Your task to perform on an android device: Clear the cart on ebay. Add "macbook air" to the cart on ebay, then select checkout. Image 0: 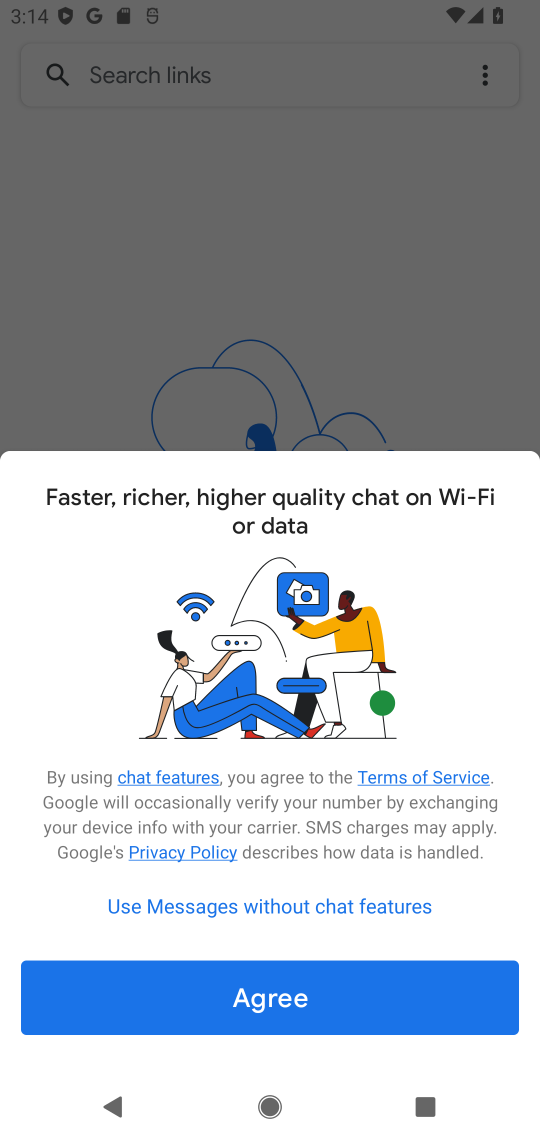
Step 0: press home button
Your task to perform on an android device: Clear the cart on ebay. Add "macbook air" to the cart on ebay, then select checkout. Image 1: 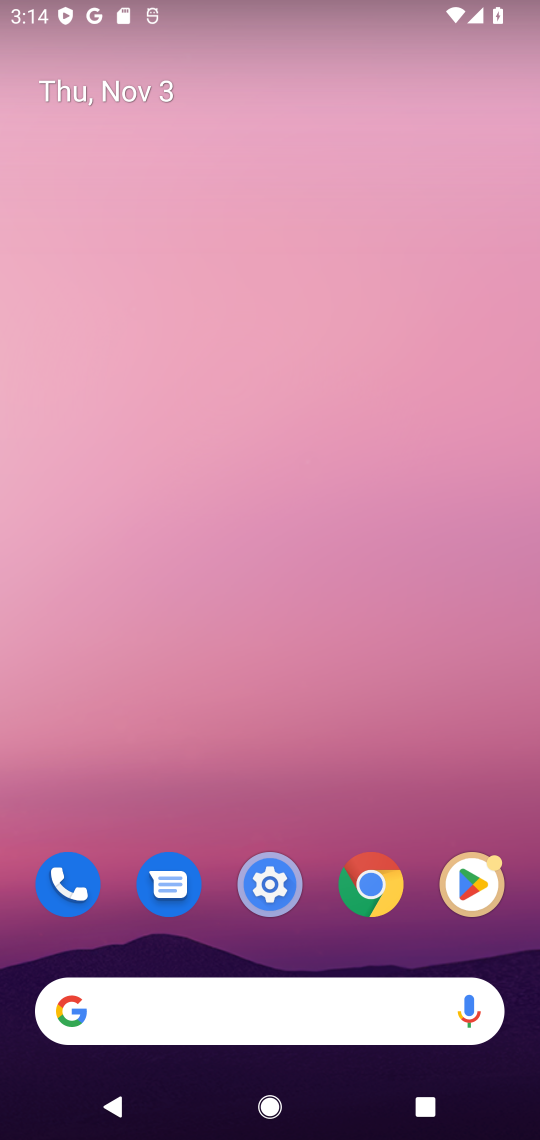
Step 1: click (106, 1003)
Your task to perform on an android device: Clear the cart on ebay. Add "macbook air" to the cart on ebay, then select checkout. Image 2: 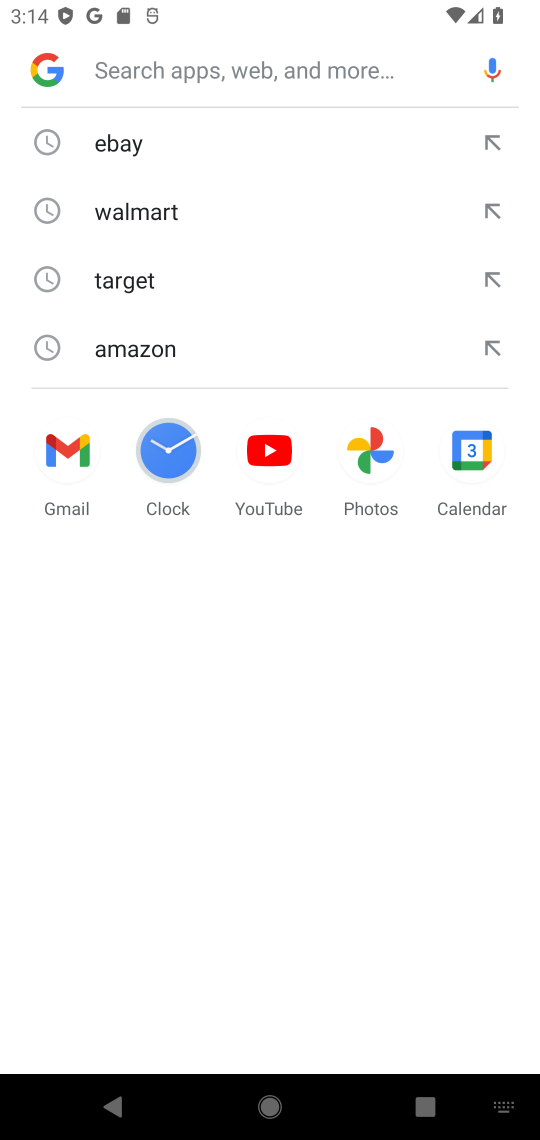
Step 2: type "ebay"
Your task to perform on an android device: Clear the cart on ebay. Add "macbook air" to the cart on ebay, then select checkout. Image 3: 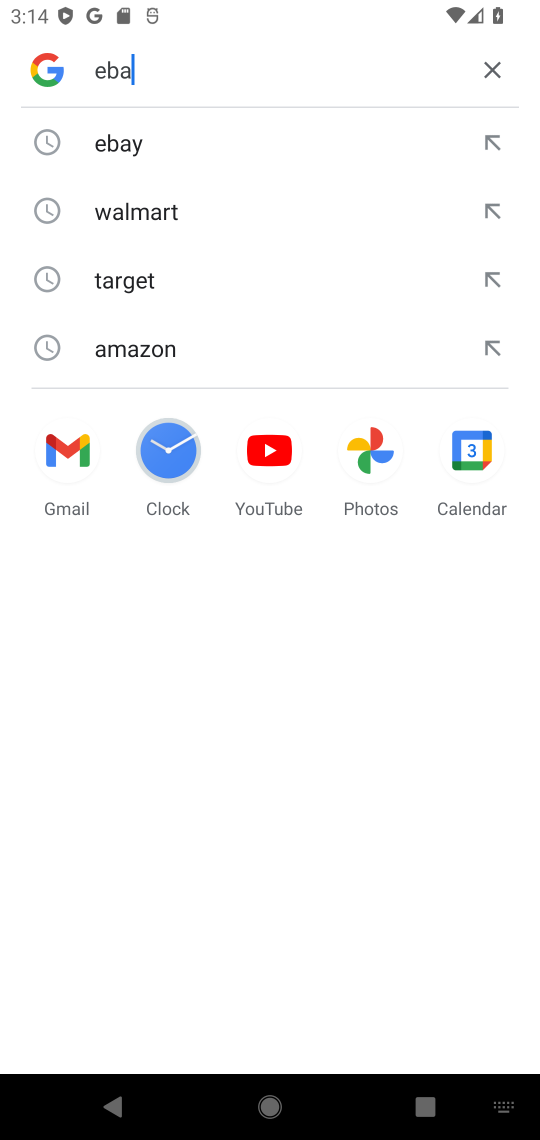
Step 3: press enter
Your task to perform on an android device: Clear the cart on ebay. Add "macbook air" to the cart on ebay, then select checkout. Image 4: 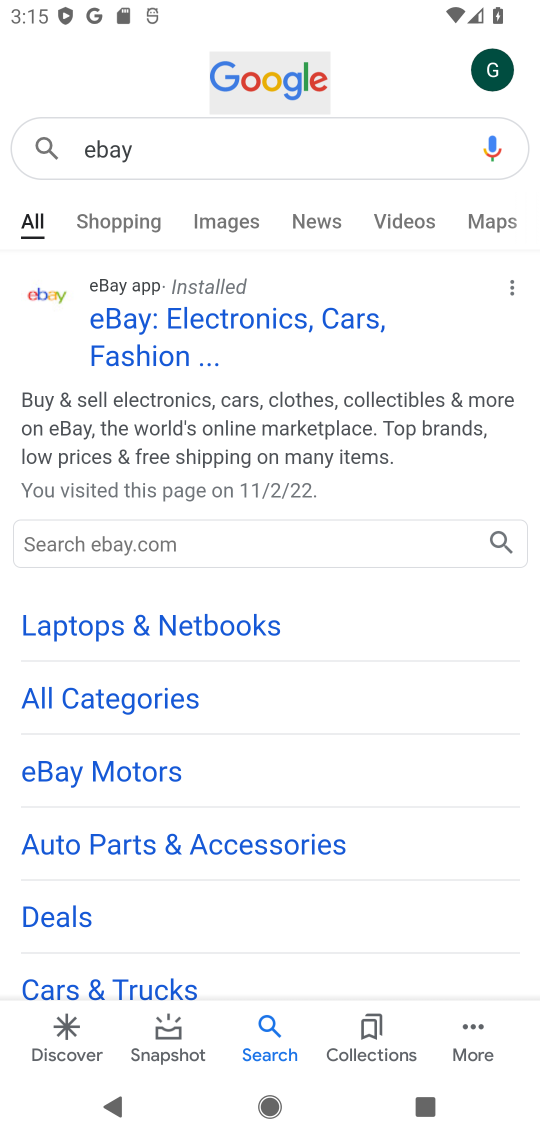
Step 4: click (182, 328)
Your task to perform on an android device: Clear the cart on ebay. Add "macbook air" to the cart on ebay, then select checkout. Image 5: 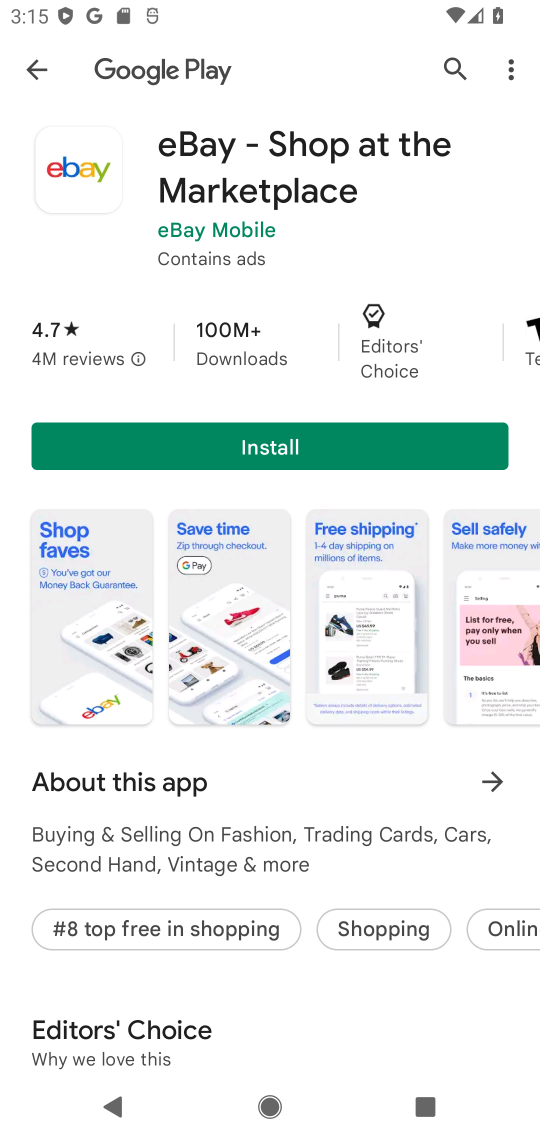
Step 5: press back button
Your task to perform on an android device: Clear the cart on ebay. Add "macbook air" to the cart on ebay, then select checkout. Image 6: 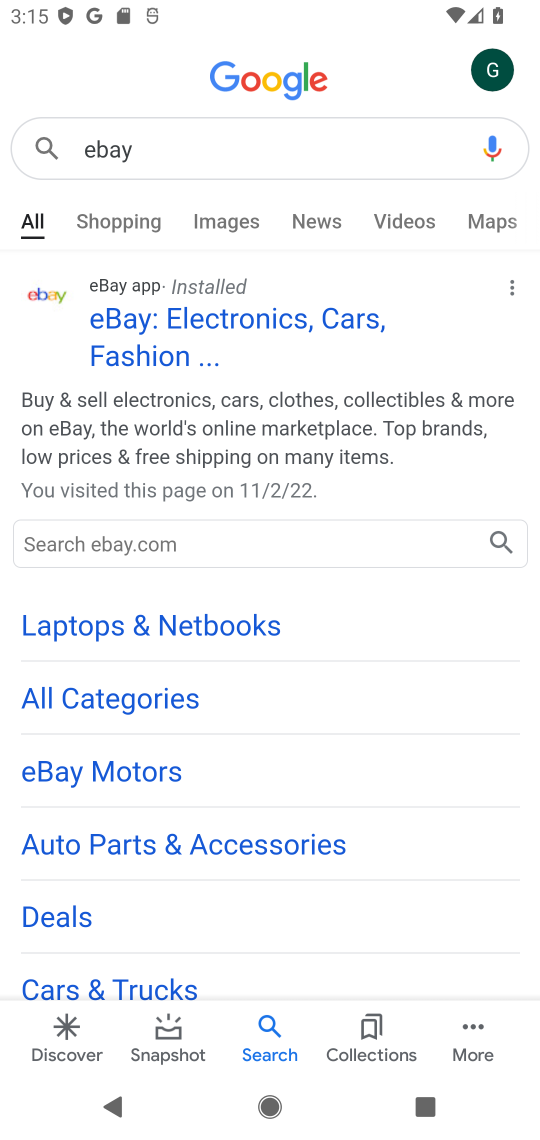
Step 6: click (157, 686)
Your task to perform on an android device: Clear the cart on ebay. Add "macbook air" to the cart on ebay, then select checkout. Image 7: 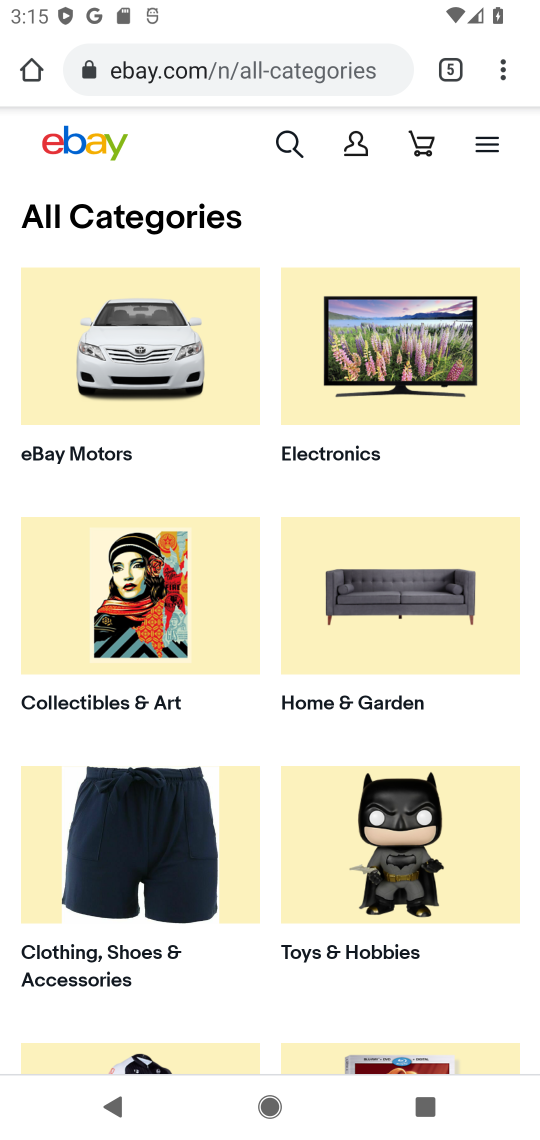
Step 7: click (422, 149)
Your task to perform on an android device: Clear the cart on ebay. Add "macbook air" to the cart on ebay, then select checkout. Image 8: 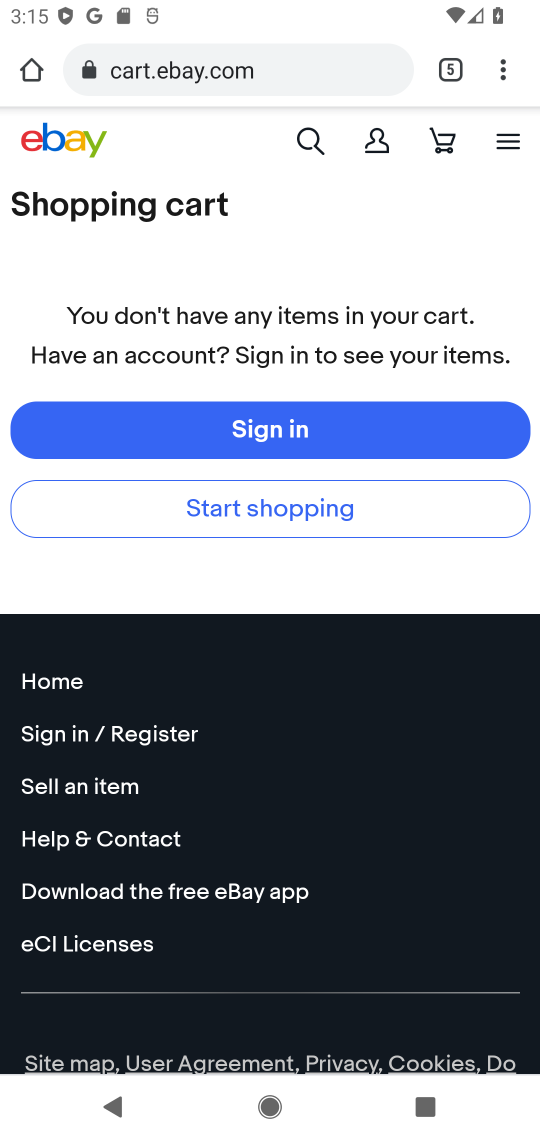
Step 8: click (301, 130)
Your task to perform on an android device: Clear the cart on ebay. Add "macbook air" to the cart on ebay, then select checkout. Image 9: 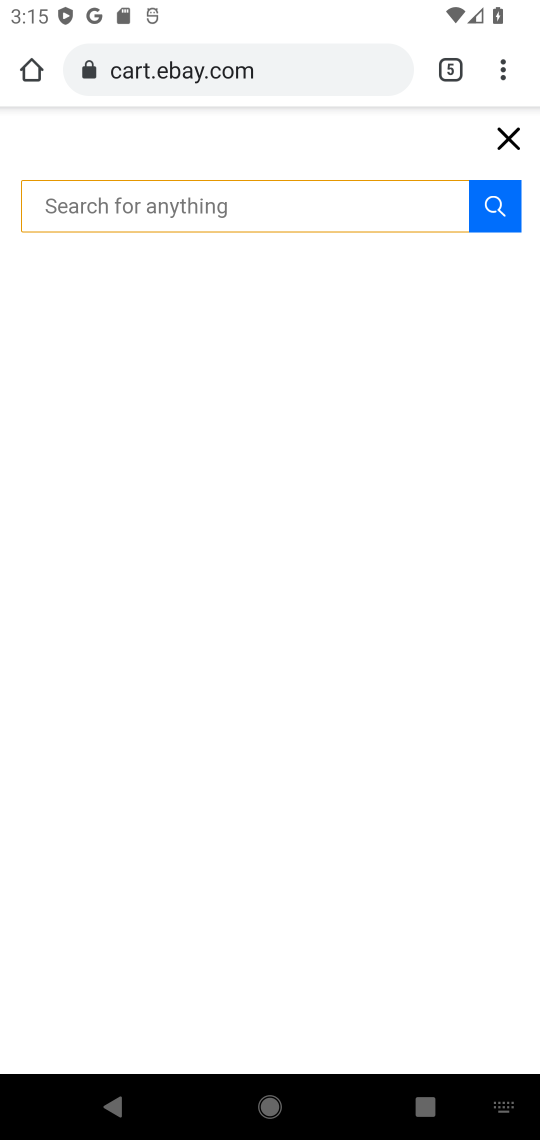
Step 9: type "macbook air"
Your task to perform on an android device: Clear the cart on ebay. Add "macbook air" to the cart on ebay, then select checkout. Image 10: 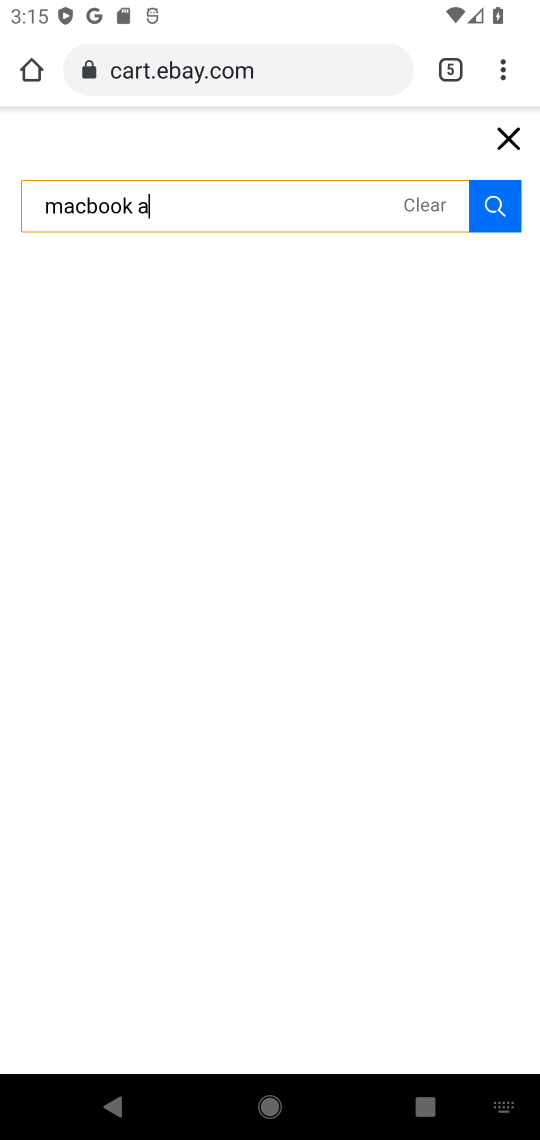
Step 10: press enter
Your task to perform on an android device: Clear the cart on ebay. Add "macbook air" to the cart on ebay, then select checkout. Image 11: 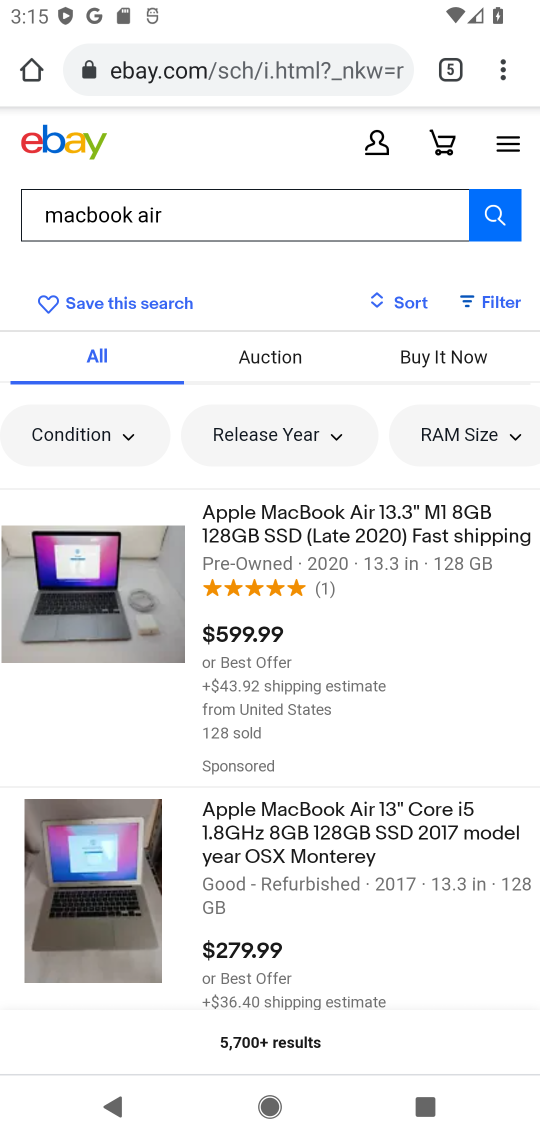
Step 11: click (274, 528)
Your task to perform on an android device: Clear the cart on ebay. Add "macbook air" to the cart on ebay, then select checkout. Image 12: 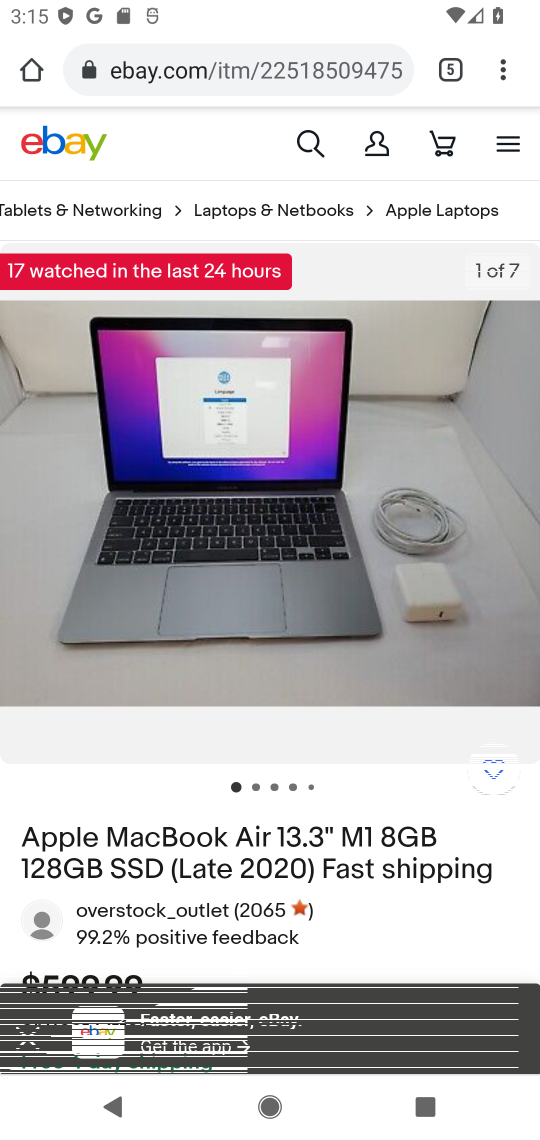
Step 12: drag from (341, 852) to (338, 417)
Your task to perform on an android device: Clear the cart on ebay. Add "macbook air" to the cart on ebay, then select checkout. Image 13: 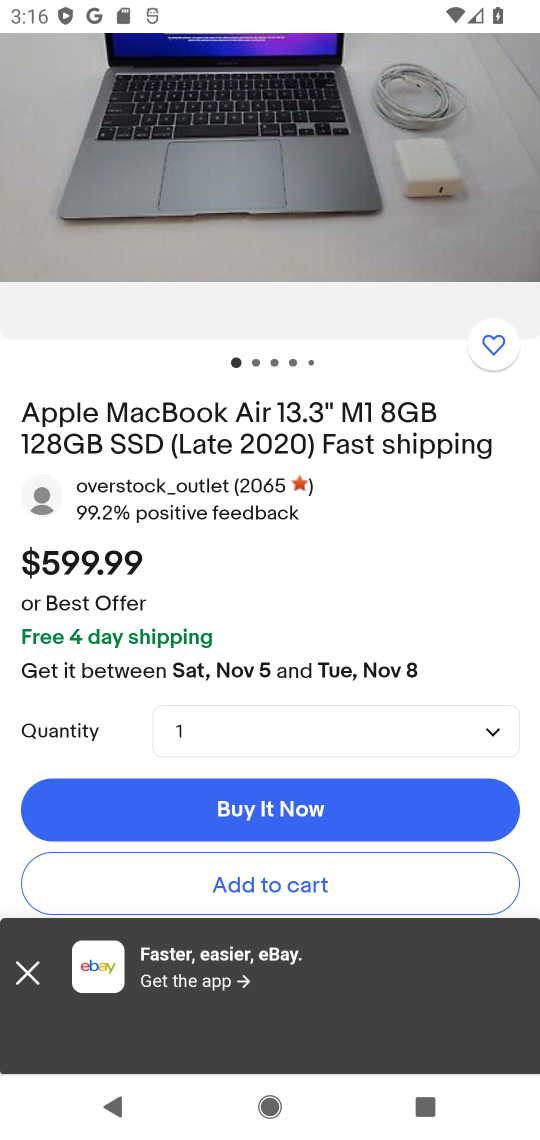
Step 13: drag from (328, 851) to (392, 353)
Your task to perform on an android device: Clear the cart on ebay. Add "macbook air" to the cart on ebay, then select checkout. Image 14: 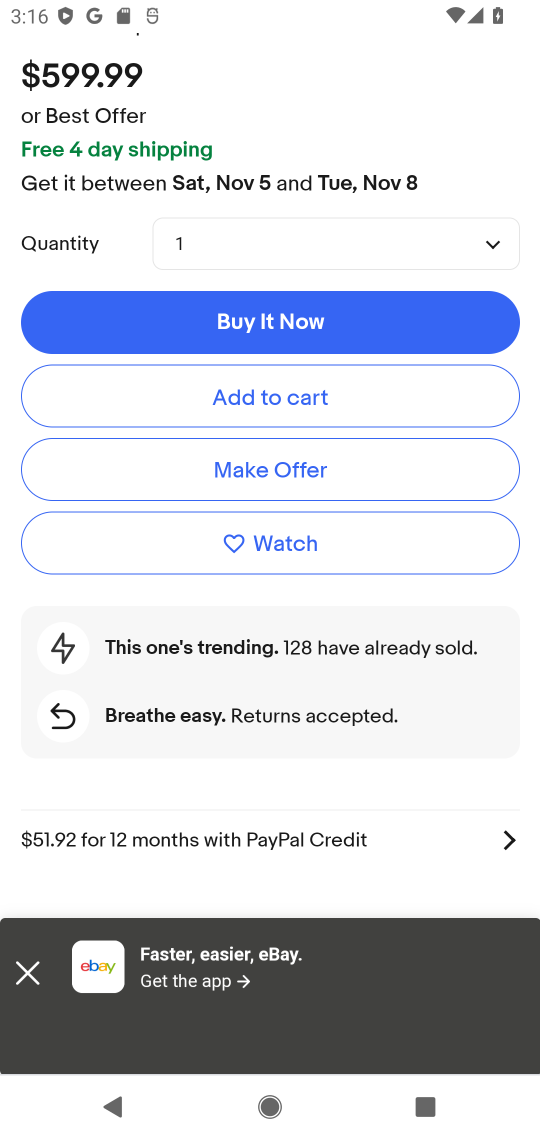
Step 14: click (246, 397)
Your task to perform on an android device: Clear the cart on ebay. Add "macbook air" to the cart on ebay, then select checkout. Image 15: 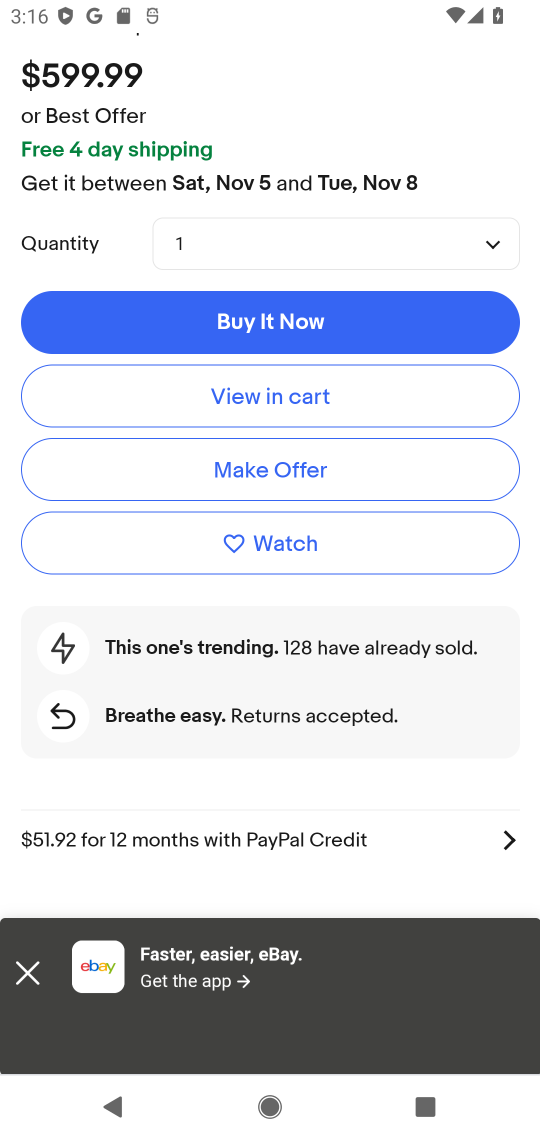
Step 15: click (242, 398)
Your task to perform on an android device: Clear the cart on ebay. Add "macbook air" to the cart on ebay, then select checkout. Image 16: 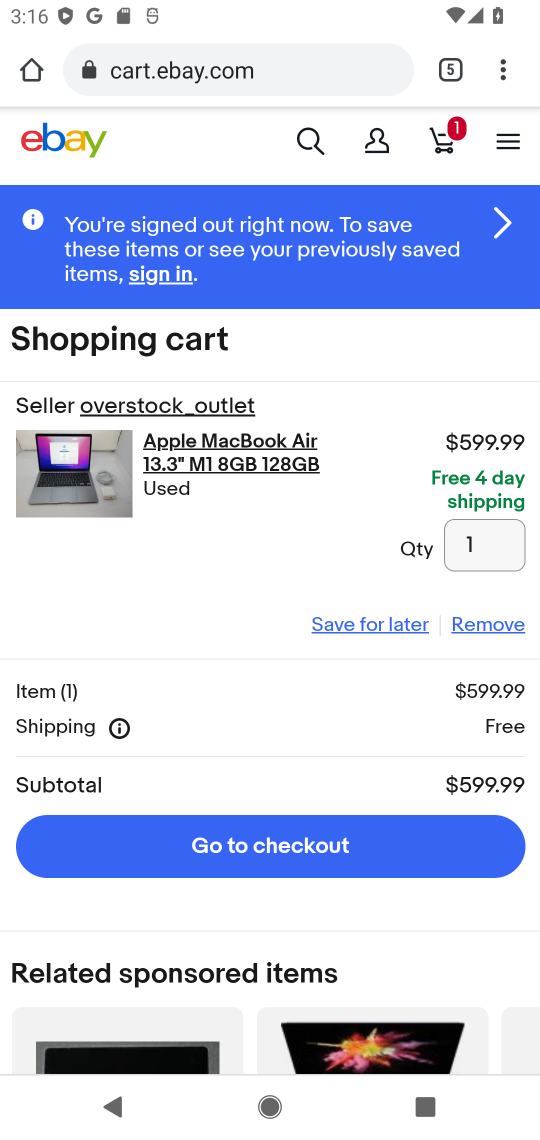
Step 16: click (251, 842)
Your task to perform on an android device: Clear the cart on ebay. Add "macbook air" to the cart on ebay, then select checkout. Image 17: 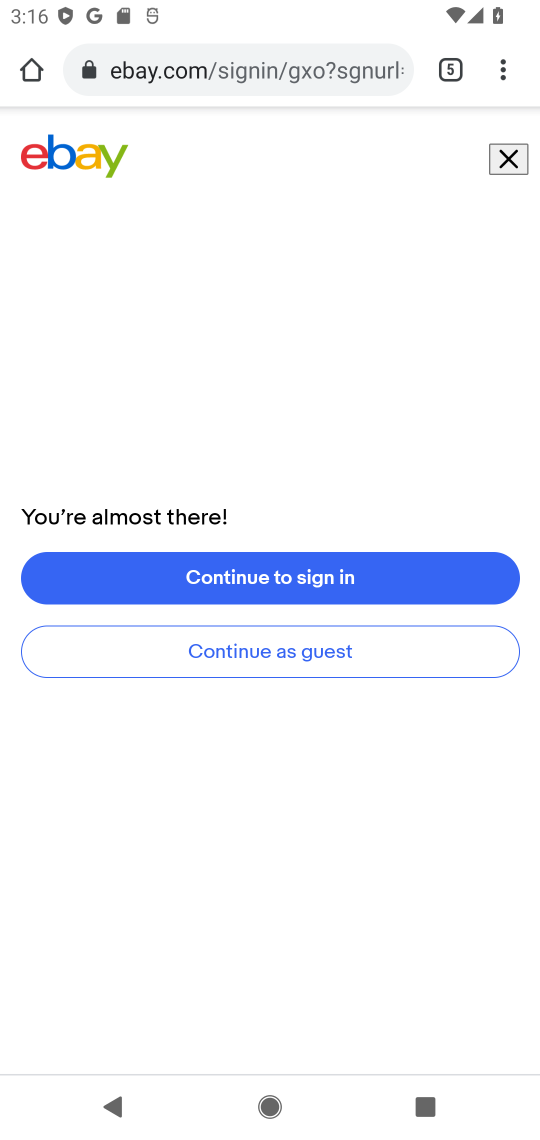
Step 17: task complete